Your task to perform on an android device: turn on wifi Image 0: 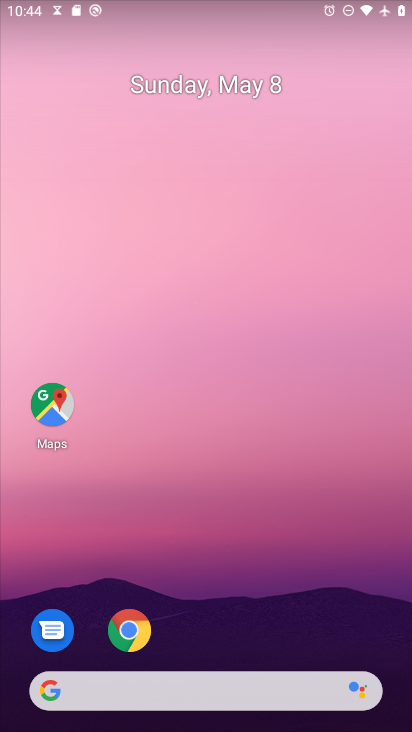
Step 0: drag from (201, 689) to (317, 228)
Your task to perform on an android device: turn on wifi Image 1: 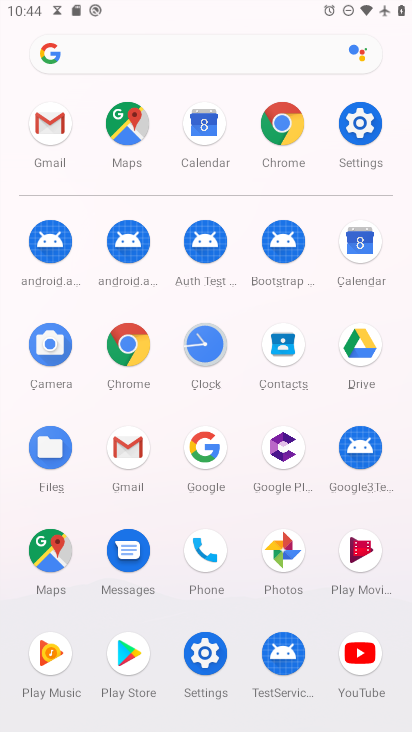
Step 1: click (350, 128)
Your task to perform on an android device: turn on wifi Image 2: 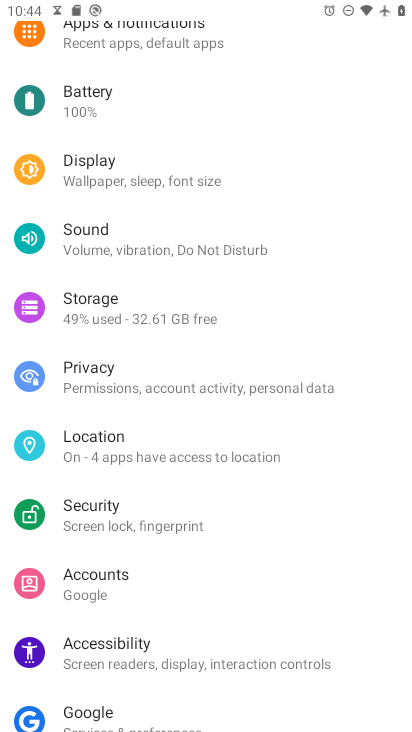
Step 2: drag from (230, 115) to (173, 432)
Your task to perform on an android device: turn on wifi Image 3: 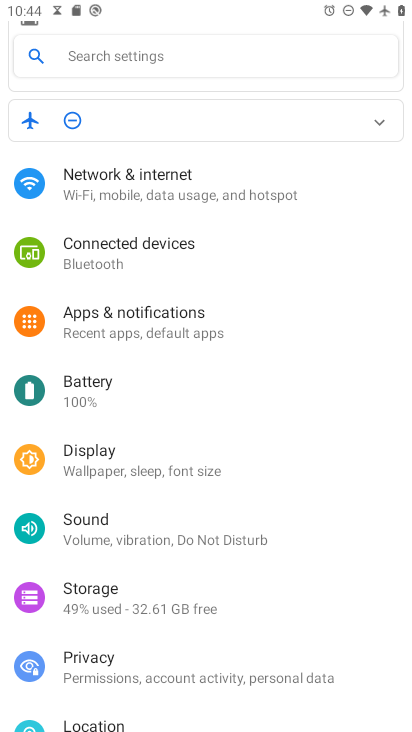
Step 3: click (174, 187)
Your task to perform on an android device: turn on wifi Image 4: 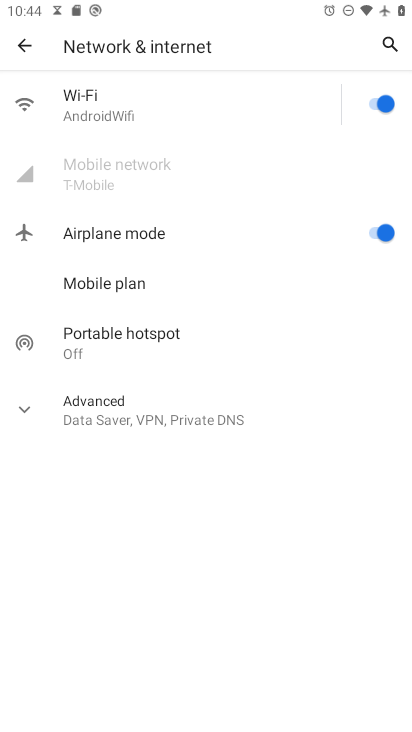
Step 4: task complete